Your task to perform on an android device: turn off picture-in-picture Image 0: 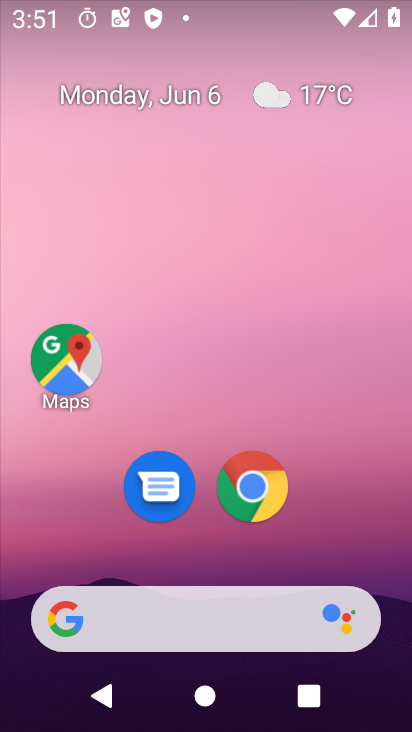
Step 0: click (256, 495)
Your task to perform on an android device: turn off picture-in-picture Image 1: 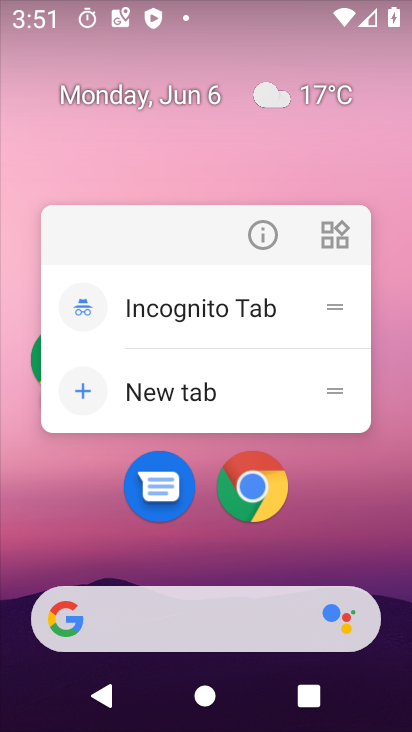
Step 1: click (259, 250)
Your task to perform on an android device: turn off picture-in-picture Image 2: 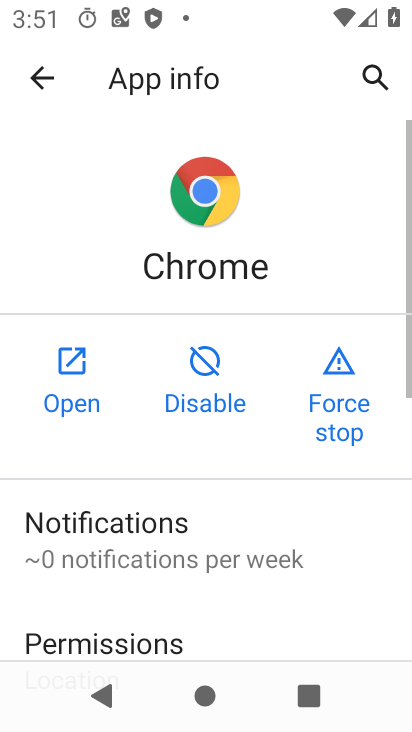
Step 2: drag from (274, 596) to (306, 22)
Your task to perform on an android device: turn off picture-in-picture Image 3: 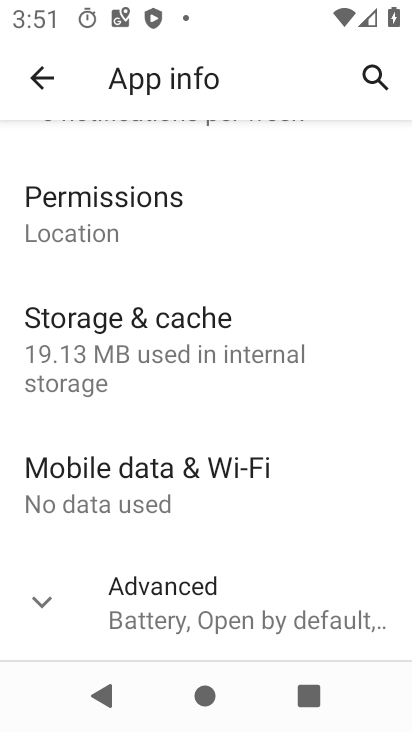
Step 3: click (198, 628)
Your task to perform on an android device: turn off picture-in-picture Image 4: 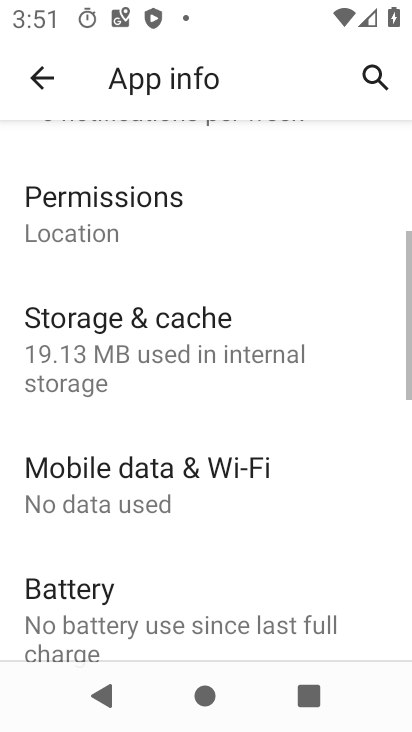
Step 4: drag from (216, 589) to (262, 130)
Your task to perform on an android device: turn off picture-in-picture Image 5: 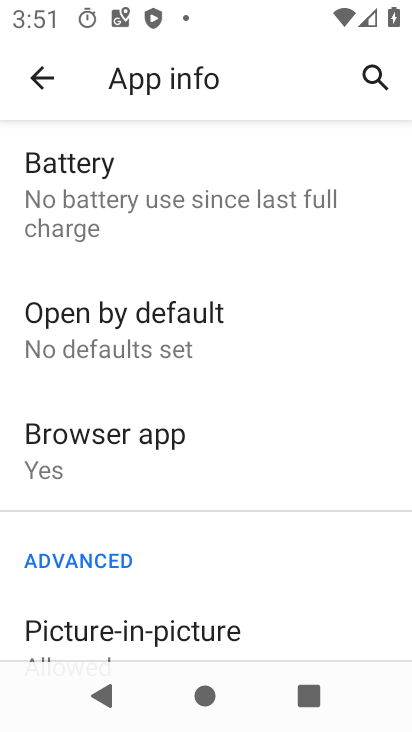
Step 5: drag from (208, 573) to (316, 203)
Your task to perform on an android device: turn off picture-in-picture Image 6: 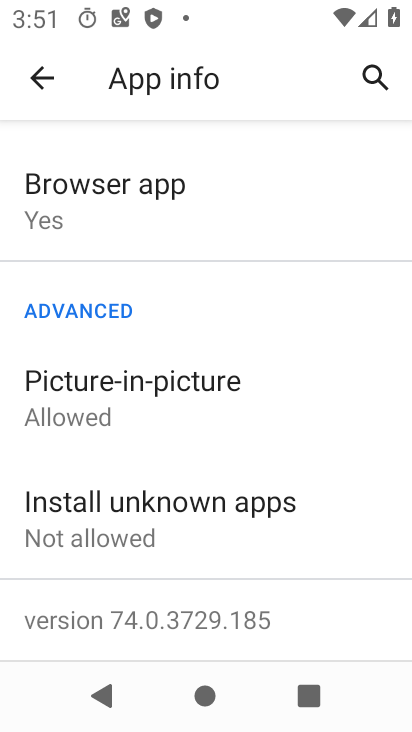
Step 6: drag from (174, 521) to (228, 225)
Your task to perform on an android device: turn off picture-in-picture Image 7: 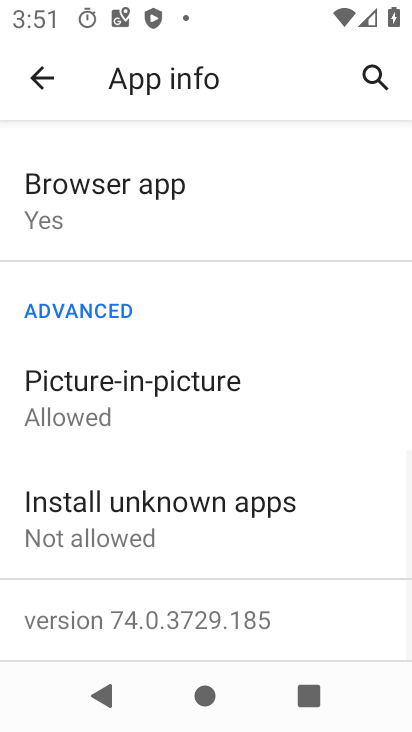
Step 7: click (129, 394)
Your task to perform on an android device: turn off picture-in-picture Image 8: 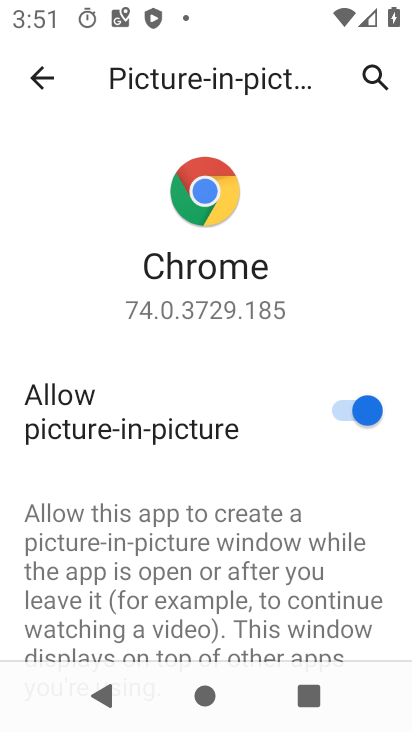
Step 8: click (361, 408)
Your task to perform on an android device: turn off picture-in-picture Image 9: 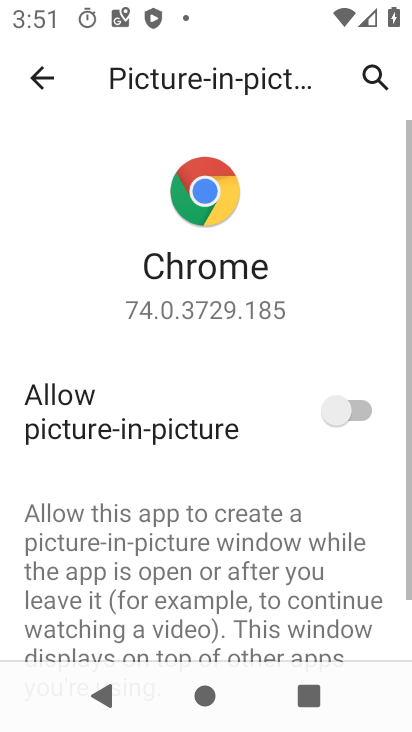
Step 9: task complete